Your task to perform on an android device: open app "Reddit" (install if not already installed) and go to login screen Image 0: 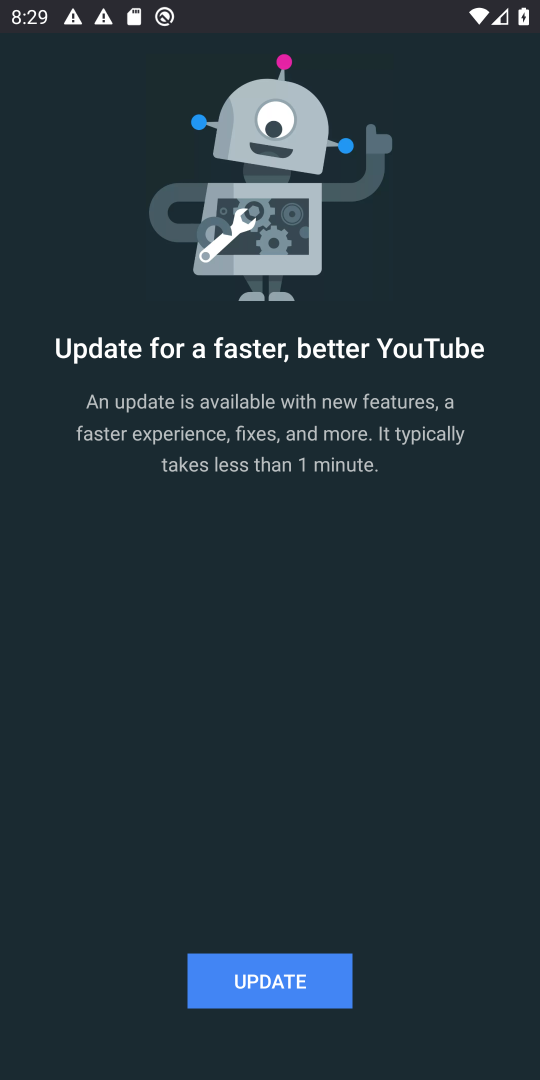
Step 0: press home button
Your task to perform on an android device: open app "Reddit" (install if not already installed) and go to login screen Image 1: 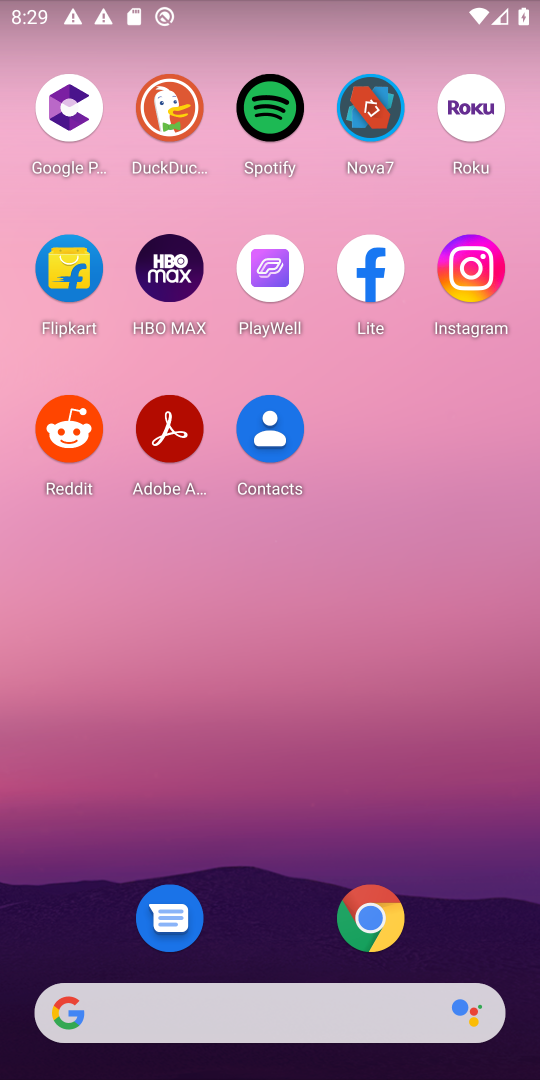
Step 1: press home button
Your task to perform on an android device: open app "Reddit" (install if not already installed) and go to login screen Image 2: 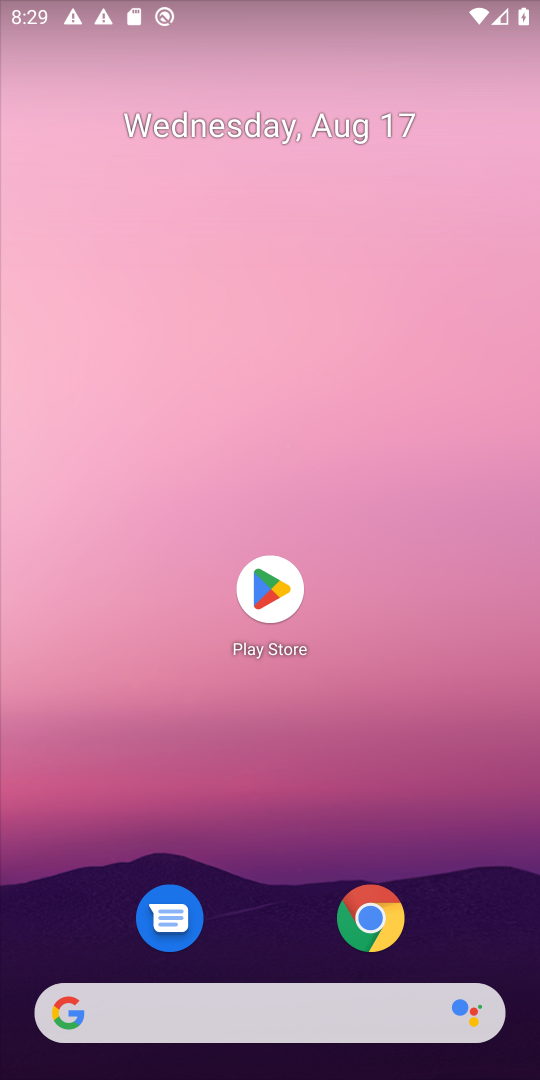
Step 2: drag from (200, 758) to (17, 739)
Your task to perform on an android device: open app "Reddit" (install if not already installed) and go to login screen Image 3: 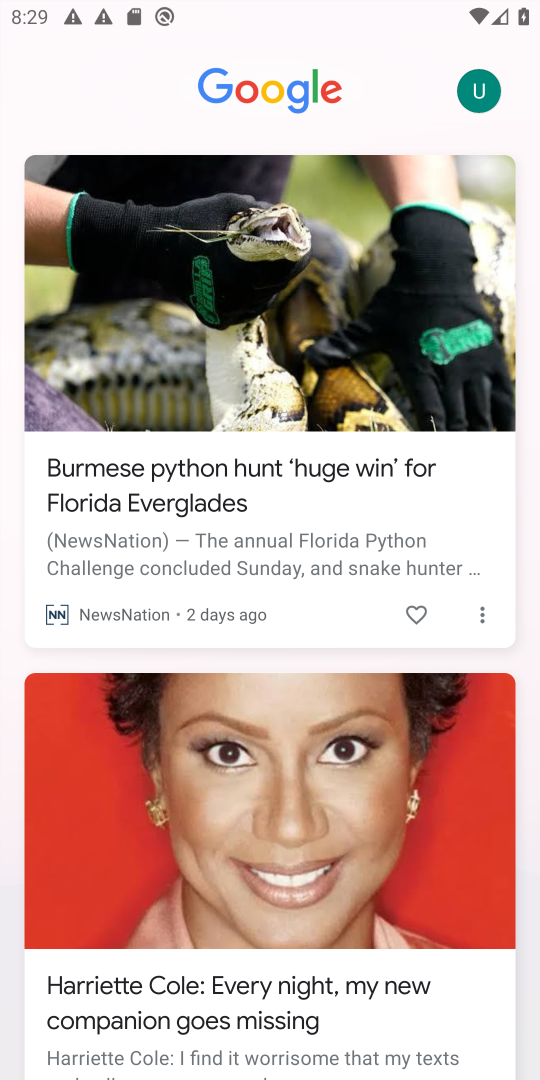
Step 3: press back button
Your task to perform on an android device: open app "Reddit" (install if not already installed) and go to login screen Image 4: 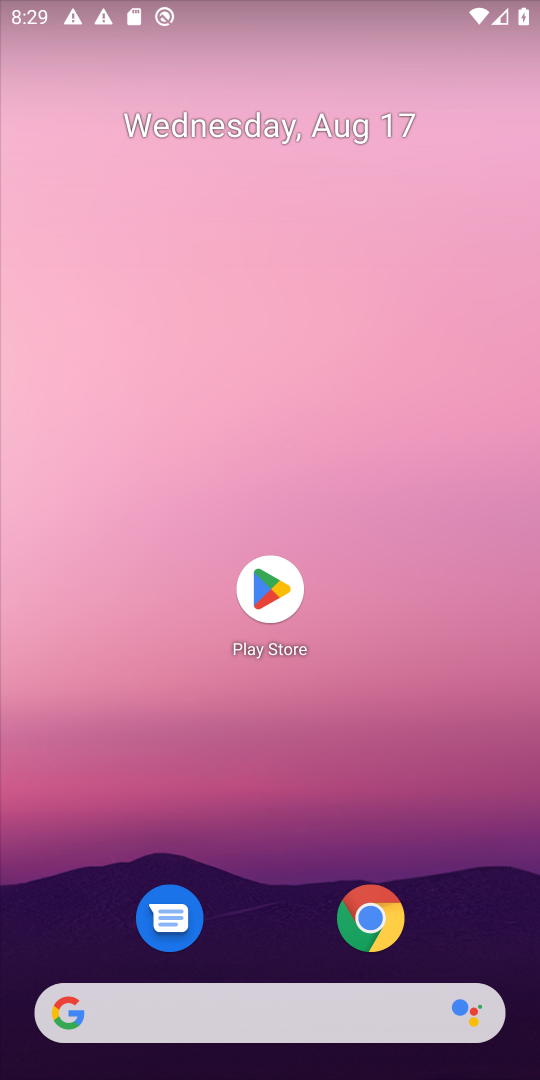
Step 4: drag from (261, 966) to (519, 167)
Your task to perform on an android device: open app "Reddit" (install if not already installed) and go to login screen Image 5: 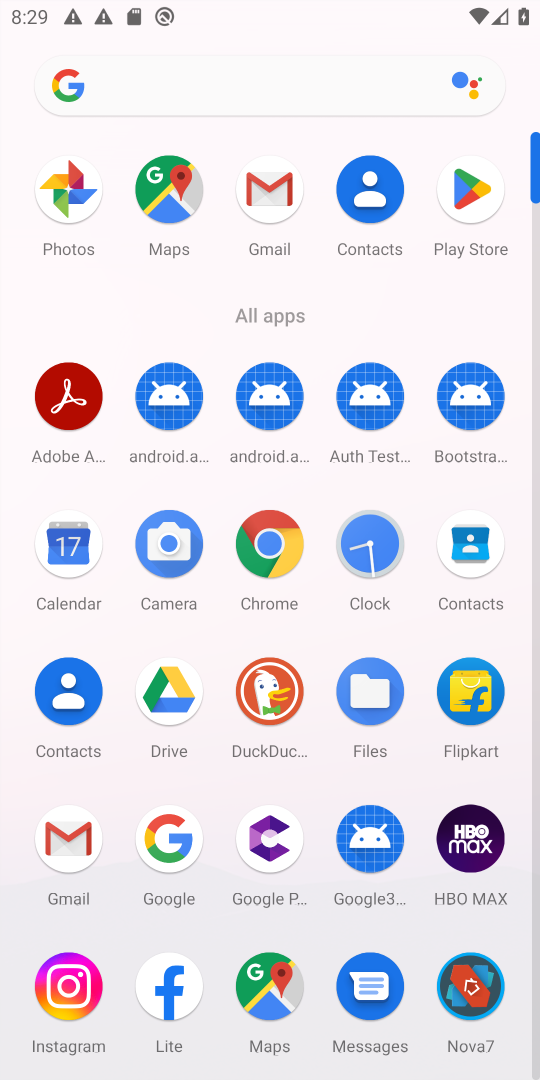
Step 5: click (461, 193)
Your task to perform on an android device: open app "Reddit" (install if not already installed) and go to login screen Image 6: 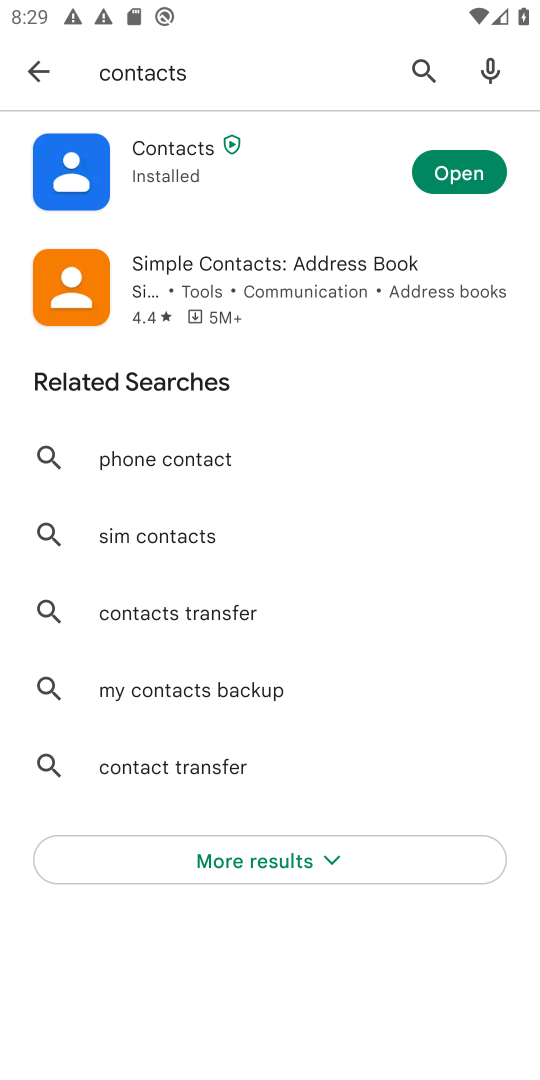
Step 6: click (422, 58)
Your task to perform on an android device: open app "Reddit" (install if not already installed) and go to login screen Image 7: 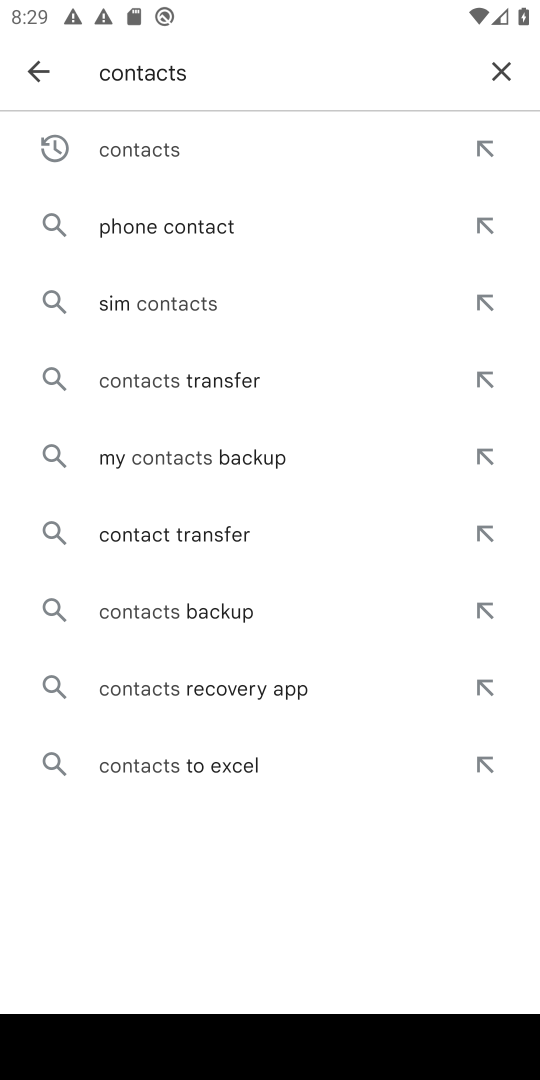
Step 7: click (507, 66)
Your task to perform on an android device: open app "Reddit" (install if not already installed) and go to login screen Image 8: 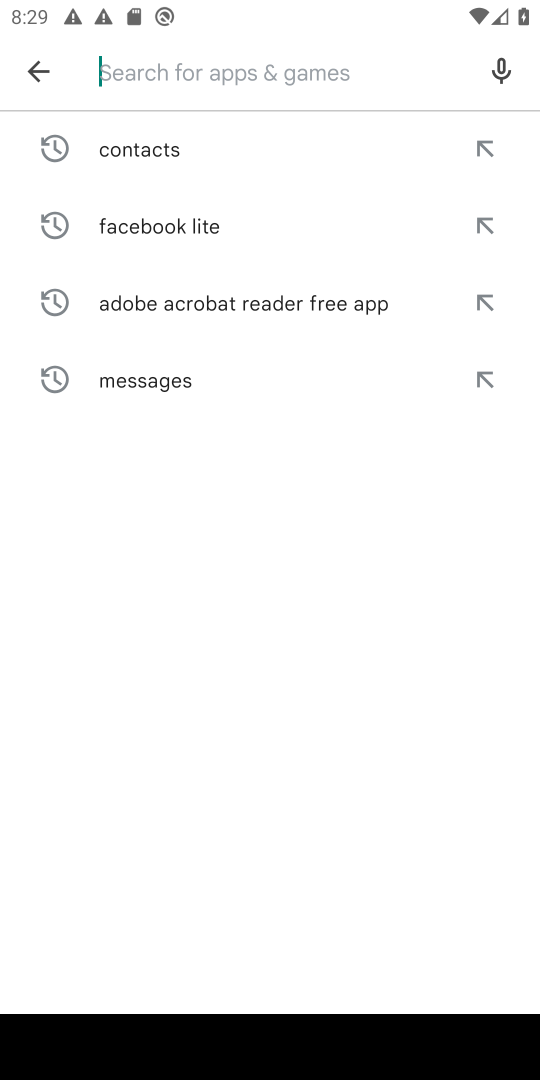
Step 8: type "Reddit"
Your task to perform on an android device: open app "Reddit" (install if not already installed) and go to login screen Image 9: 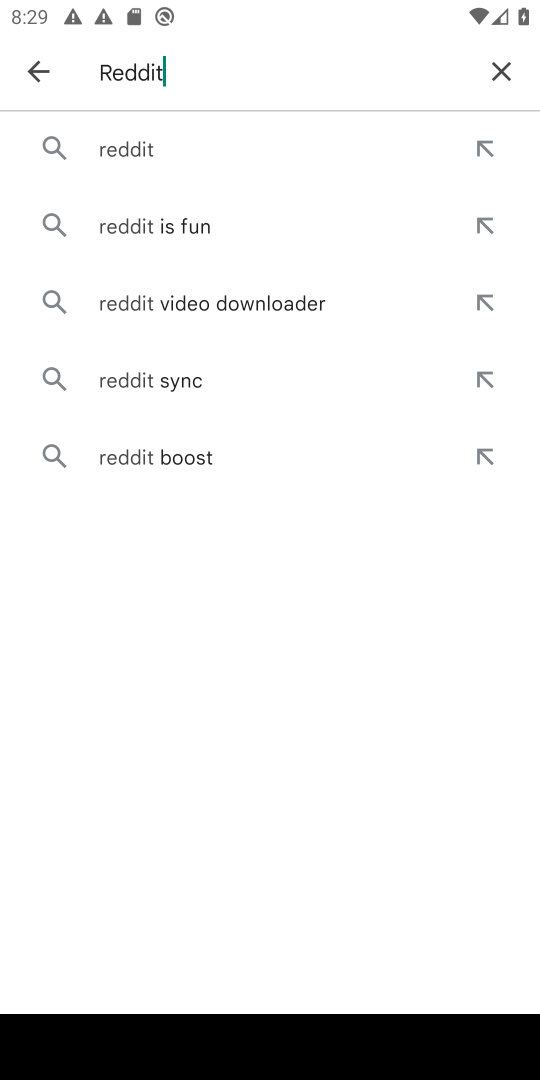
Step 9: click (116, 151)
Your task to perform on an android device: open app "Reddit" (install if not already installed) and go to login screen Image 10: 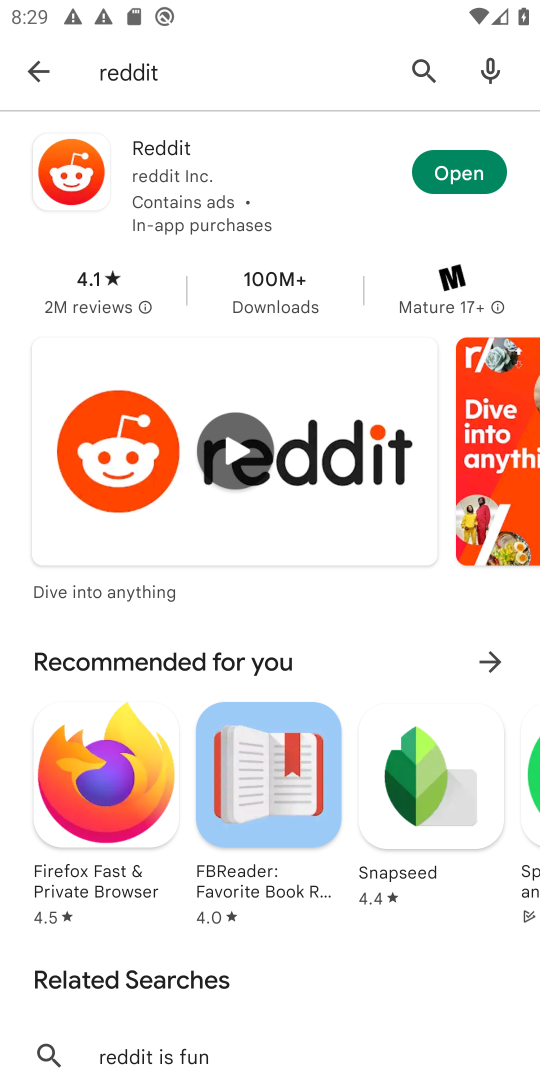
Step 10: click (439, 167)
Your task to perform on an android device: open app "Reddit" (install if not already installed) and go to login screen Image 11: 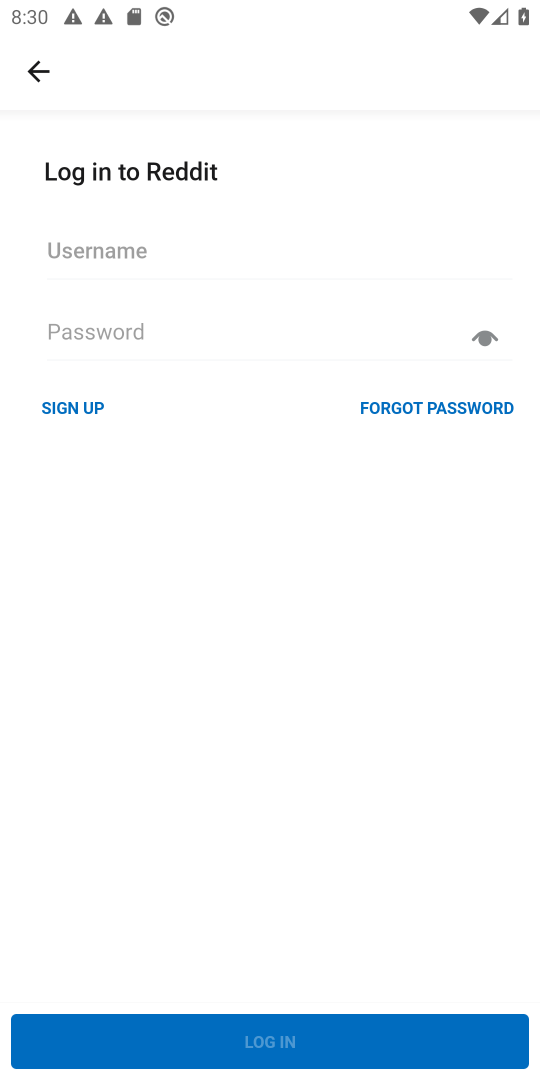
Step 11: task complete